Your task to perform on an android device: Open the calendar and show me this week's events? Image 0: 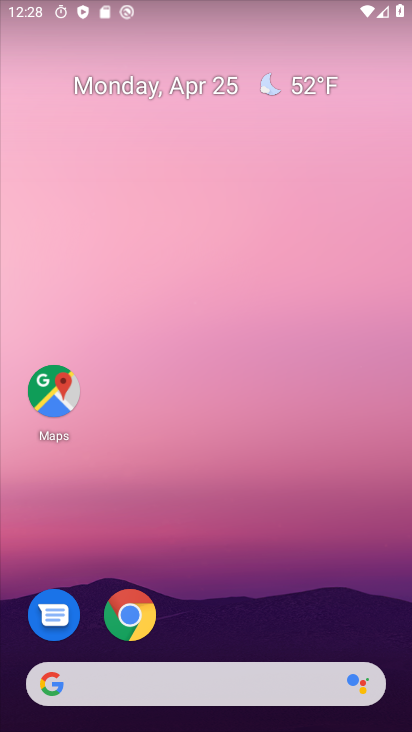
Step 0: drag from (196, 653) to (315, 70)
Your task to perform on an android device: Open the calendar and show me this week's events? Image 1: 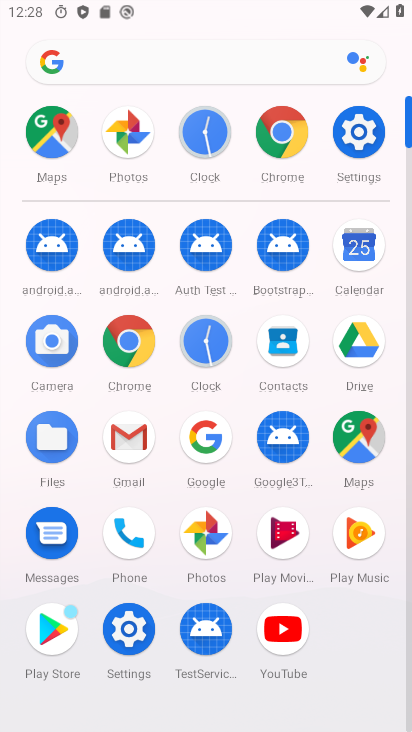
Step 1: click (363, 250)
Your task to perform on an android device: Open the calendar and show me this week's events? Image 2: 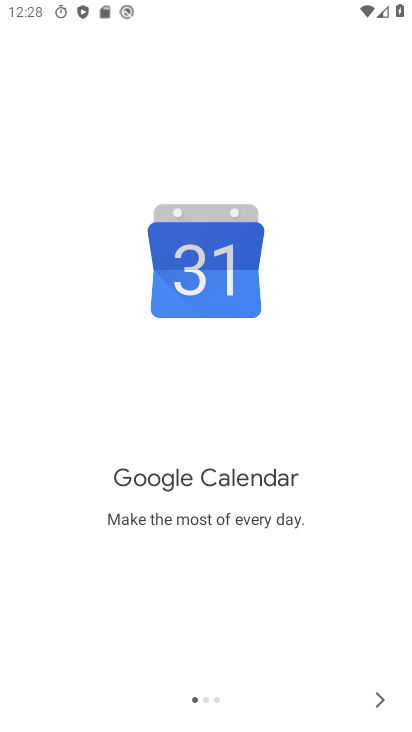
Step 2: click (377, 693)
Your task to perform on an android device: Open the calendar and show me this week's events? Image 3: 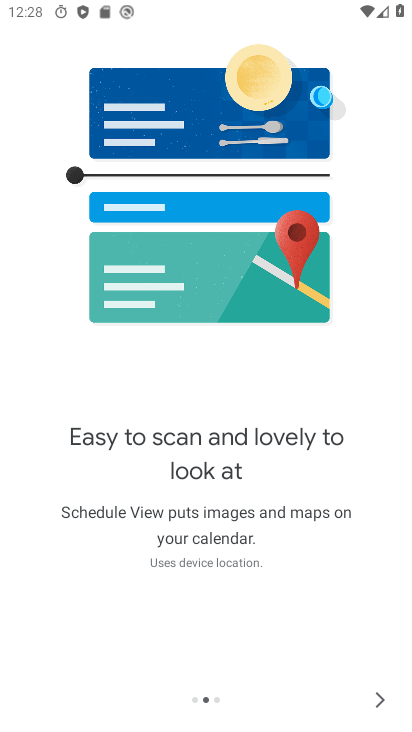
Step 3: click (377, 693)
Your task to perform on an android device: Open the calendar and show me this week's events? Image 4: 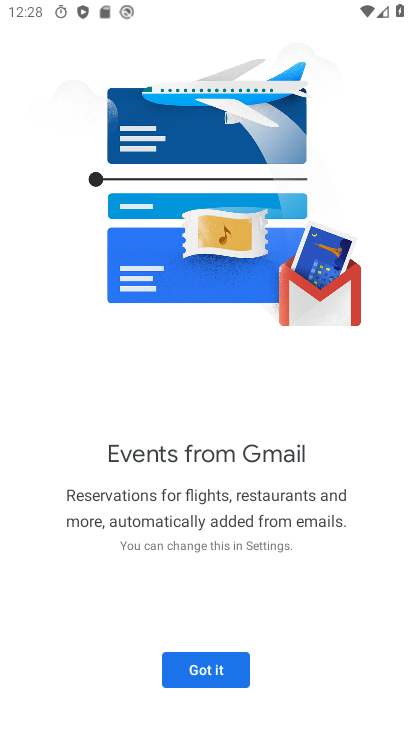
Step 4: click (222, 664)
Your task to perform on an android device: Open the calendar and show me this week's events? Image 5: 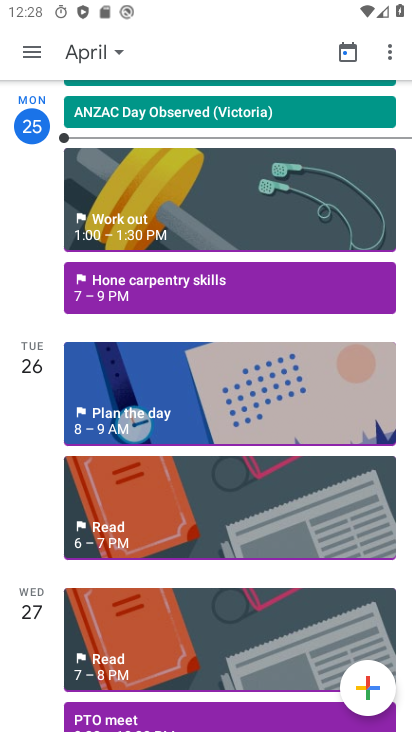
Step 5: click (31, 59)
Your task to perform on an android device: Open the calendar and show me this week's events? Image 6: 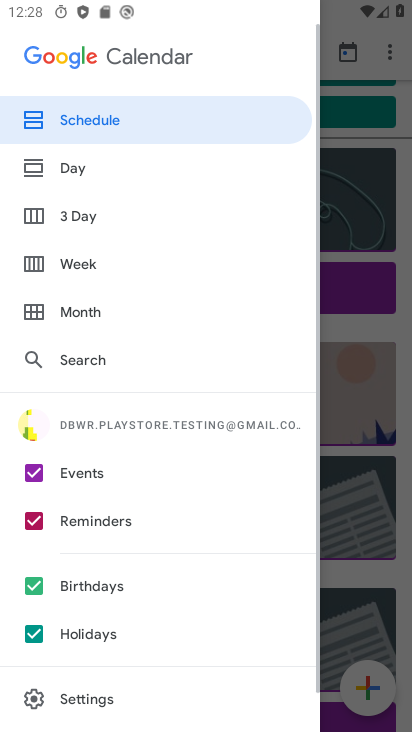
Step 6: click (55, 254)
Your task to perform on an android device: Open the calendar and show me this week's events? Image 7: 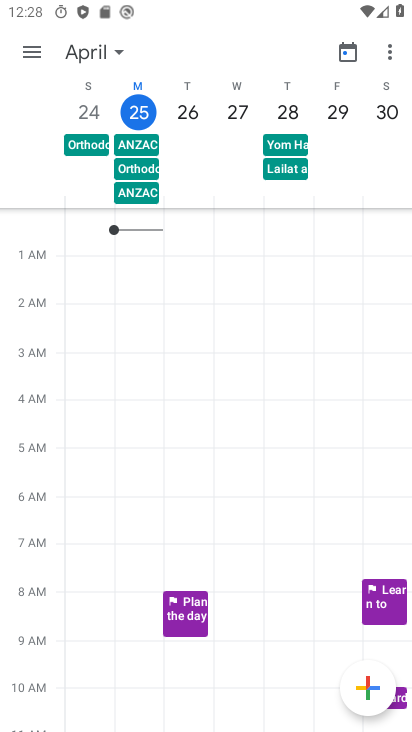
Step 7: task complete